Your task to perform on an android device: Open the web browser Image 0: 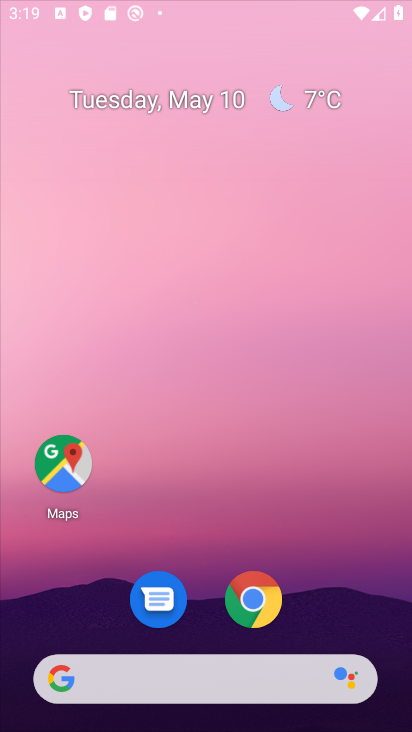
Step 0: drag from (184, 682) to (269, 154)
Your task to perform on an android device: Open the web browser Image 1: 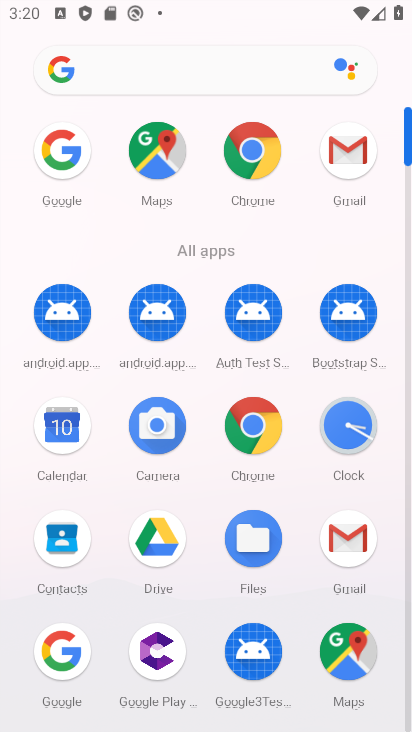
Step 1: click (253, 177)
Your task to perform on an android device: Open the web browser Image 2: 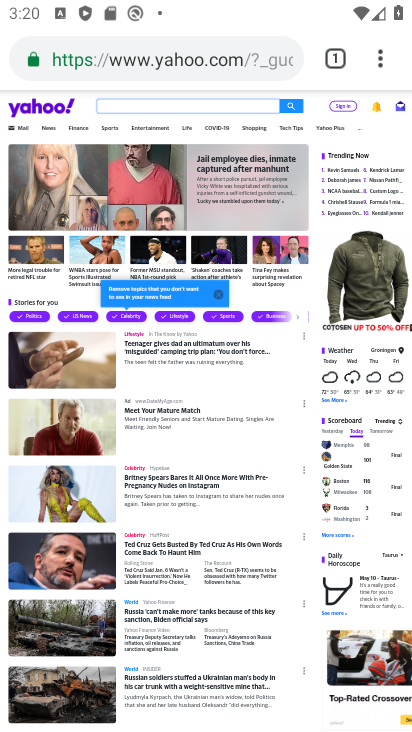
Step 2: task complete